Your task to perform on an android device: Open Amazon Image 0: 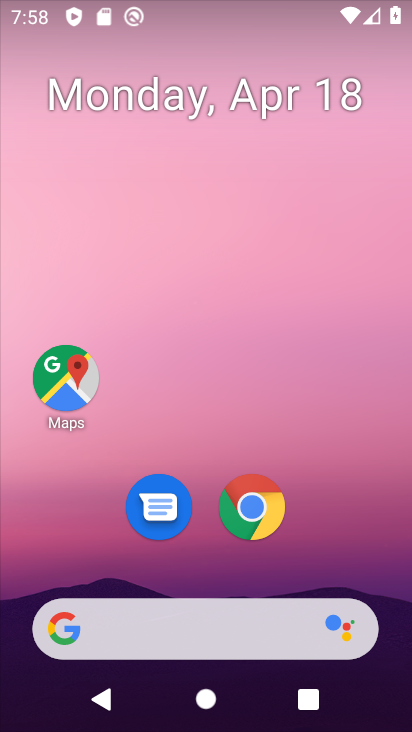
Step 0: click (262, 503)
Your task to perform on an android device: Open Amazon Image 1: 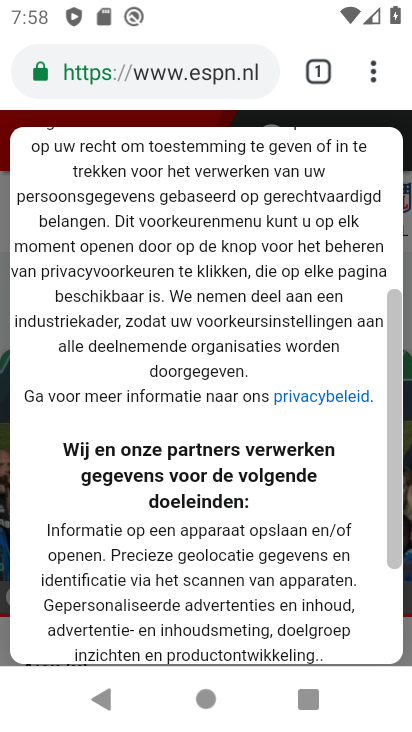
Step 1: click (320, 66)
Your task to perform on an android device: Open Amazon Image 2: 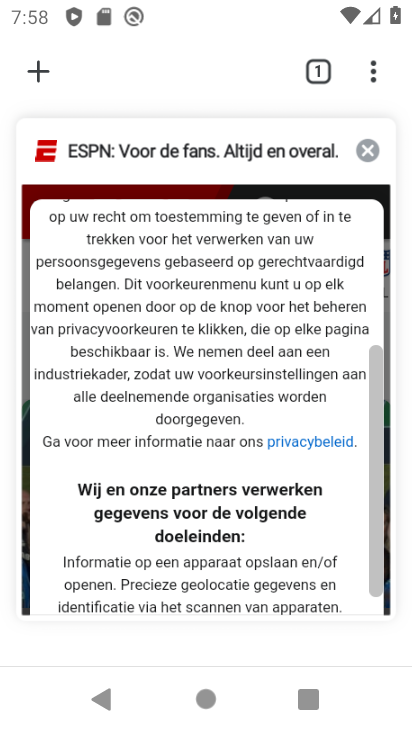
Step 2: click (34, 70)
Your task to perform on an android device: Open Amazon Image 3: 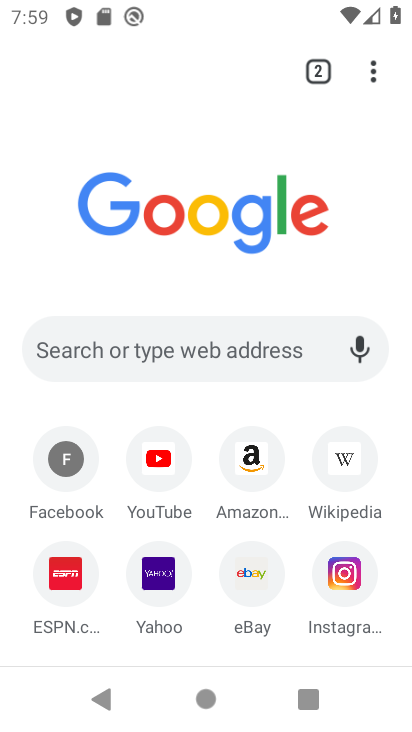
Step 3: click (255, 452)
Your task to perform on an android device: Open Amazon Image 4: 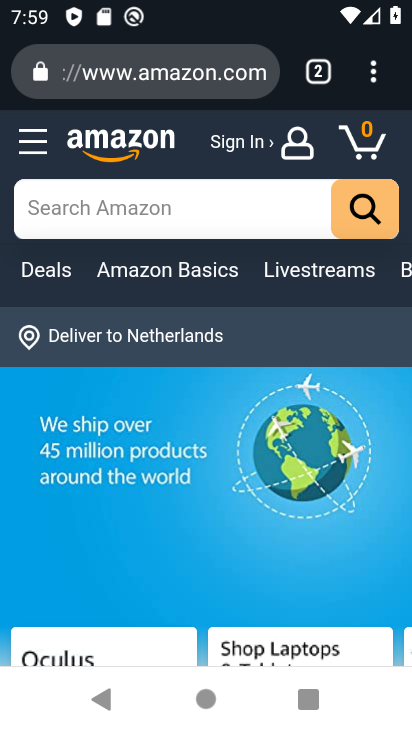
Step 4: task complete